Your task to perform on an android device: see tabs open on other devices in the chrome app Image 0: 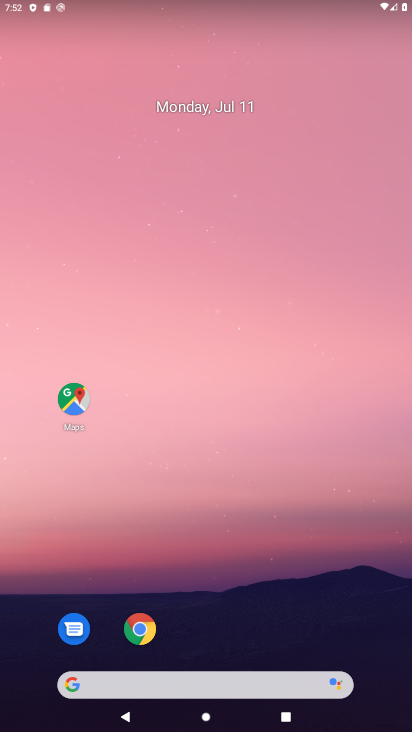
Step 0: drag from (191, 668) to (180, 159)
Your task to perform on an android device: see tabs open on other devices in the chrome app Image 1: 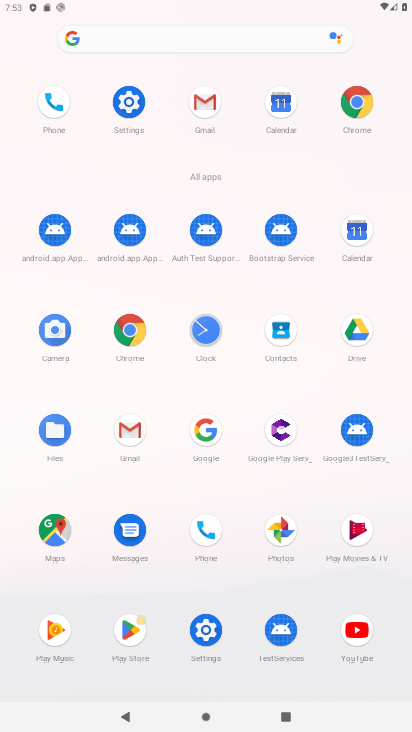
Step 1: click (124, 325)
Your task to perform on an android device: see tabs open on other devices in the chrome app Image 2: 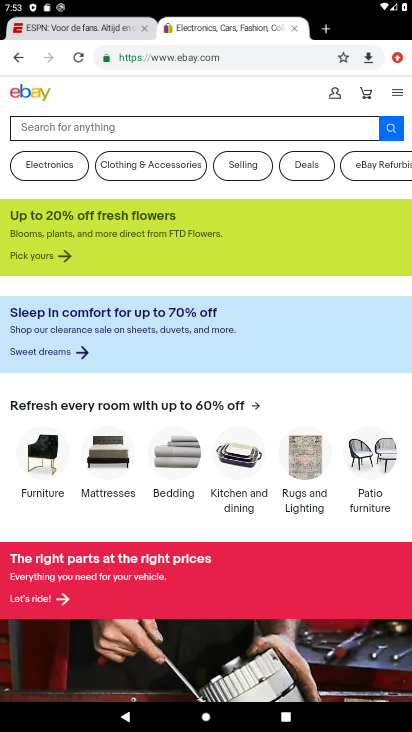
Step 2: click (65, 34)
Your task to perform on an android device: see tabs open on other devices in the chrome app Image 3: 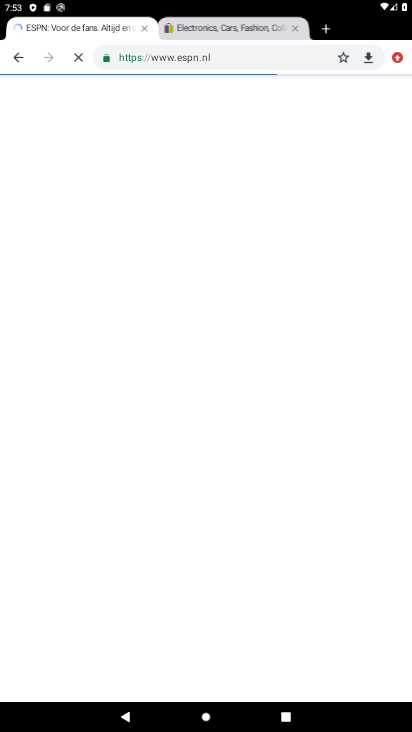
Step 3: click (191, 28)
Your task to perform on an android device: see tabs open on other devices in the chrome app Image 4: 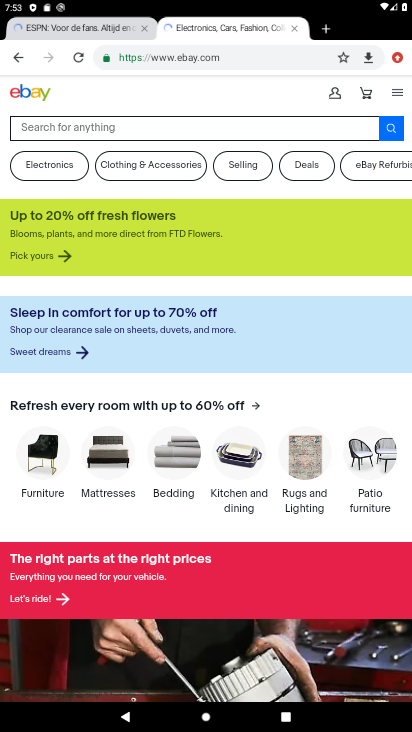
Step 4: task complete